Your task to perform on an android device: set the stopwatch Image 0: 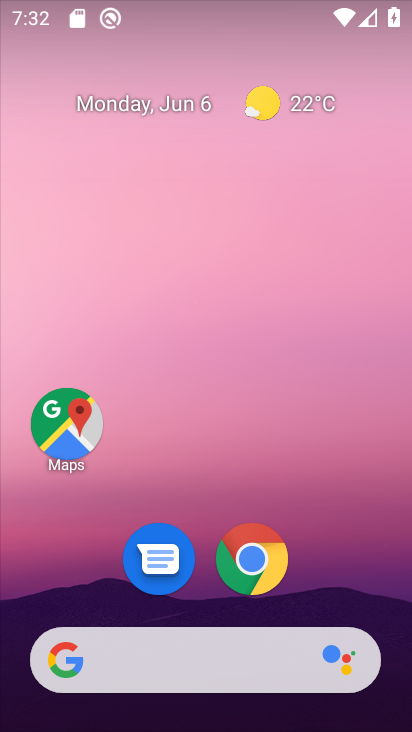
Step 0: drag from (205, 581) to (281, 197)
Your task to perform on an android device: set the stopwatch Image 1: 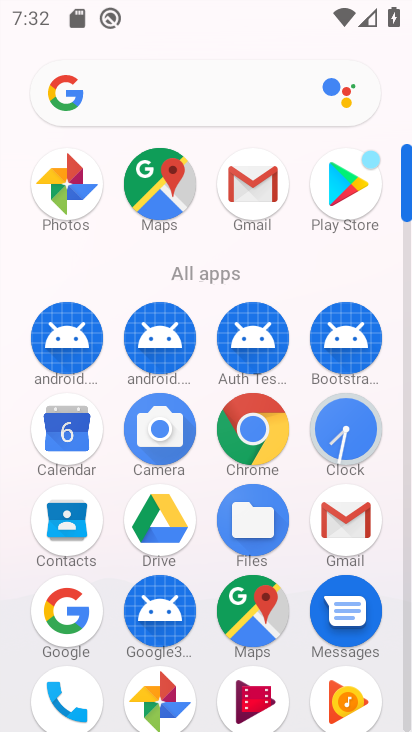
Step 1: click (350, 425)
Your task to perform on an android device: set the stopwatch Image 2: 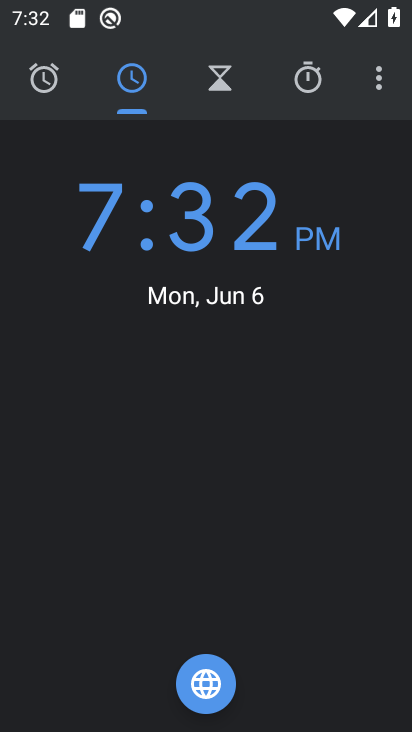
Step 2: click (301, 88)
Your task to perform on an android device: set the stopwatch Image 3: 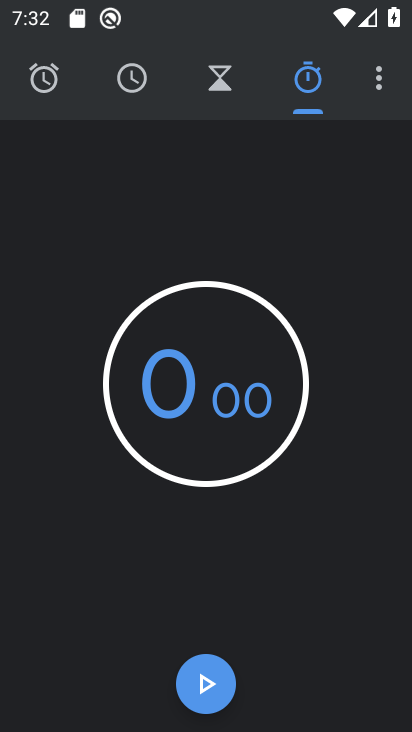
Step 3: click (215, 398)
Your task to perform on an android device: set the stopwatch Image 4: 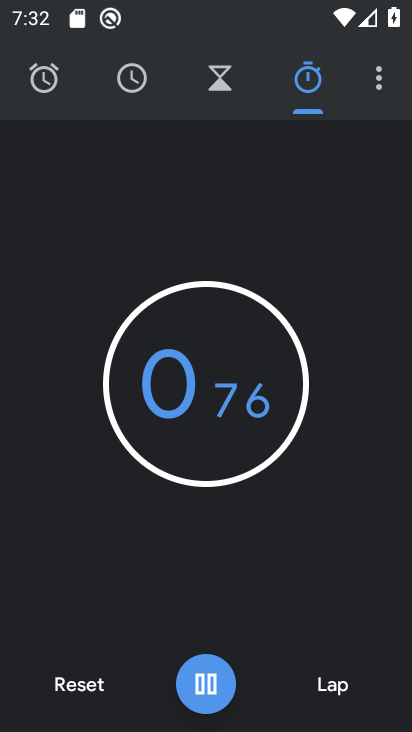
Step 4: click (215, 398)
Your task to perform on an android device: set the stopwatch Image 5: 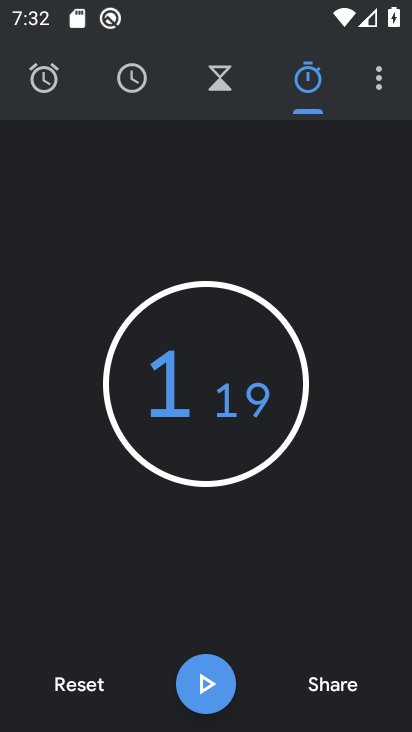
Step 5: task complete